Your task to perform on an android device: Open eBay Image 0: 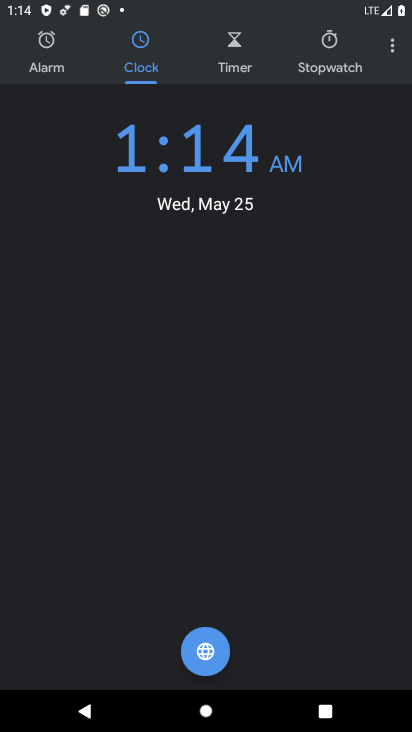
Step 0: press home button
Your task to perform on an android device: Open eBay Image 1: 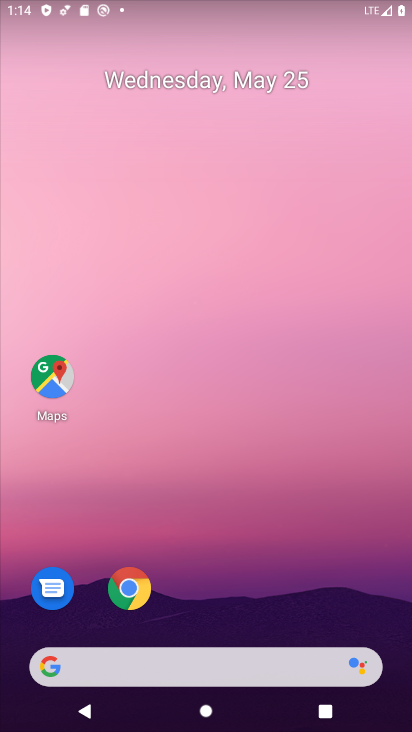
Step 1: click (129, 576)
Your task to perform on an android device: Open eBay Image 2: 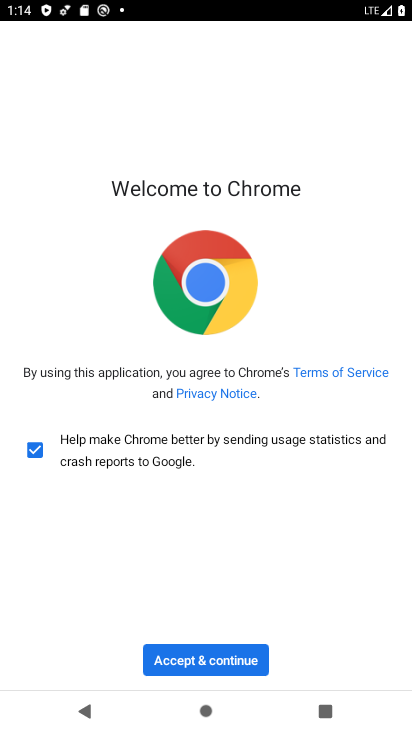
Step 2: click (197, 654)
Your task to perform on an android device: Open eBay Image 3: 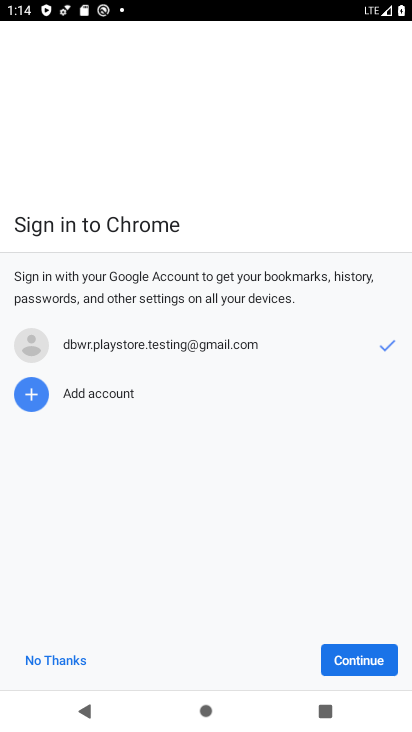
Step 3: click (44, 661)
Your task to perform on an android device: Open eBay Image 4: 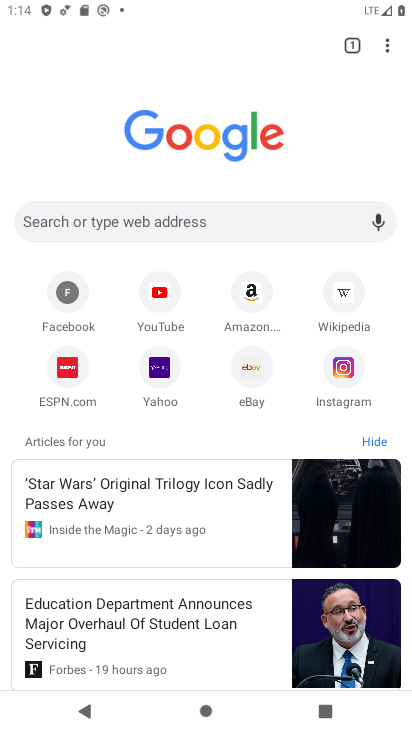
Step 4: click (254, 378)
Your task to perform on an android device: Open eBay Image 5: 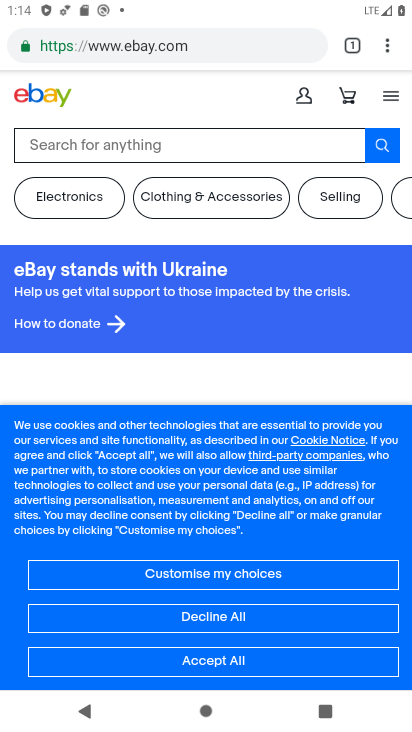
Step 5: task complete